Your task to perform on an android device: Open settings Image 0: 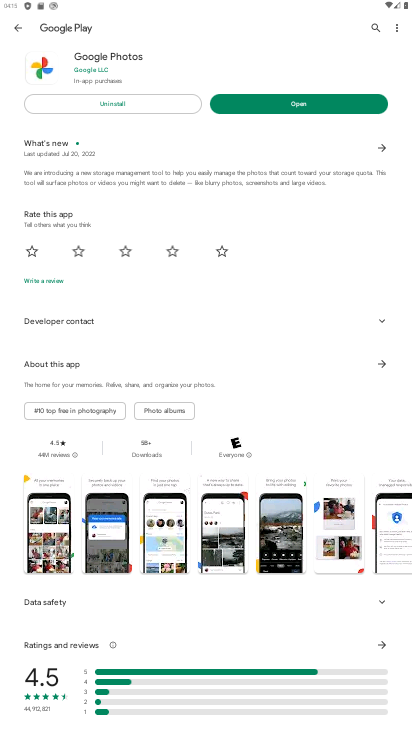
Step 0: press home button
Your task to perform on an android device: Open settings Image 1: 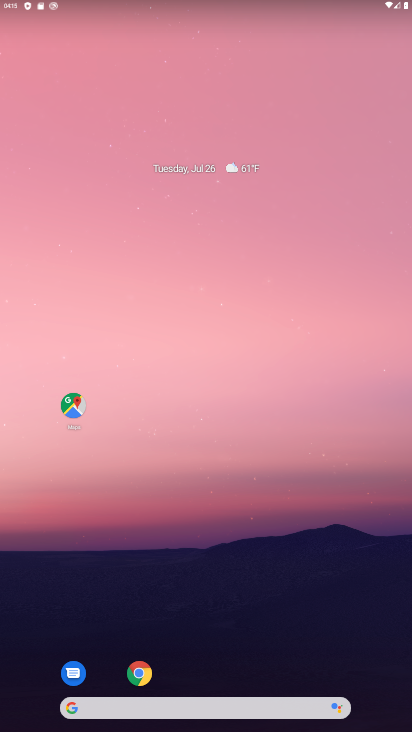
Step 1: drag from (199, 678) to (248, 131)
Your task to perform on an android device: Open settings Image 2: 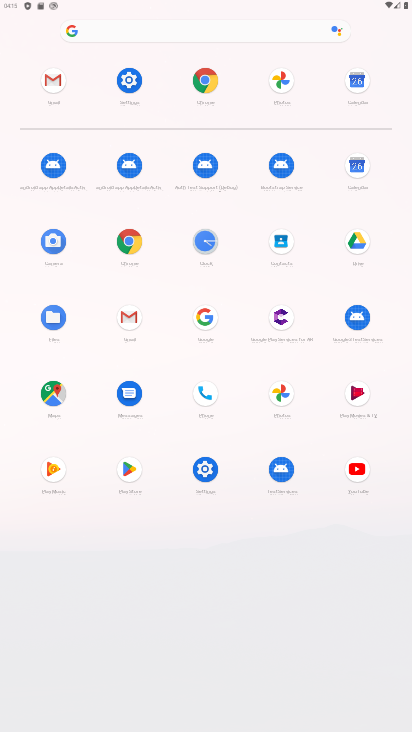
Step 2: click (130, 75)
Your task to perform on an android device: Open settings Image 3: 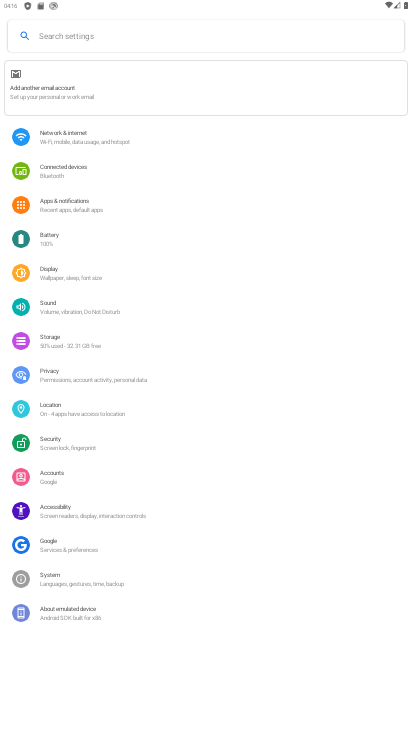
Step 3: task complete